Your task to perform on an android device: change your default location settings in chrome Image 0: 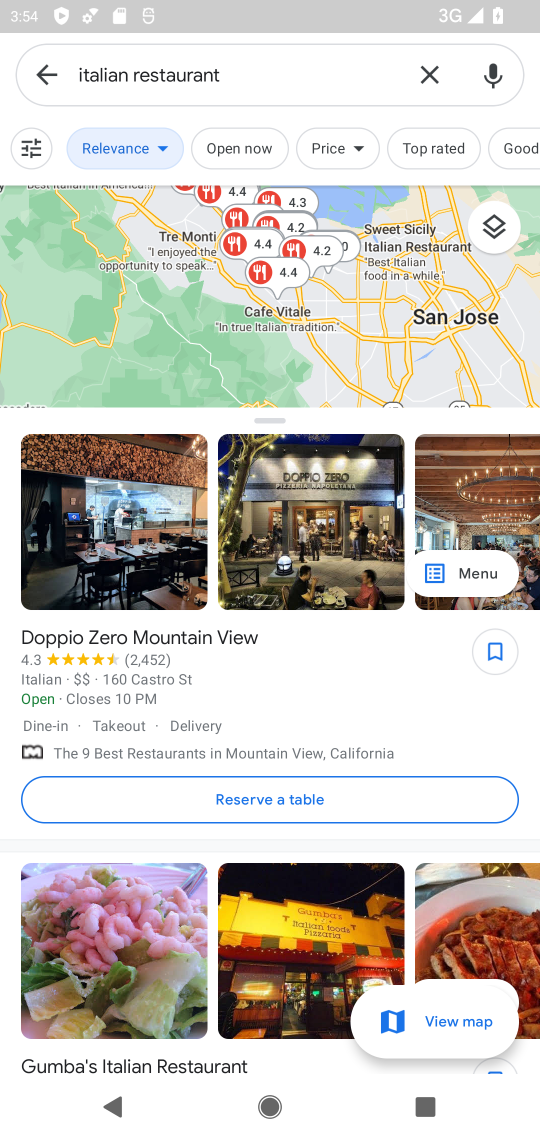
Step 0: press home button
Your task to perform on an android device: change your default location settings in chrome Image 1: 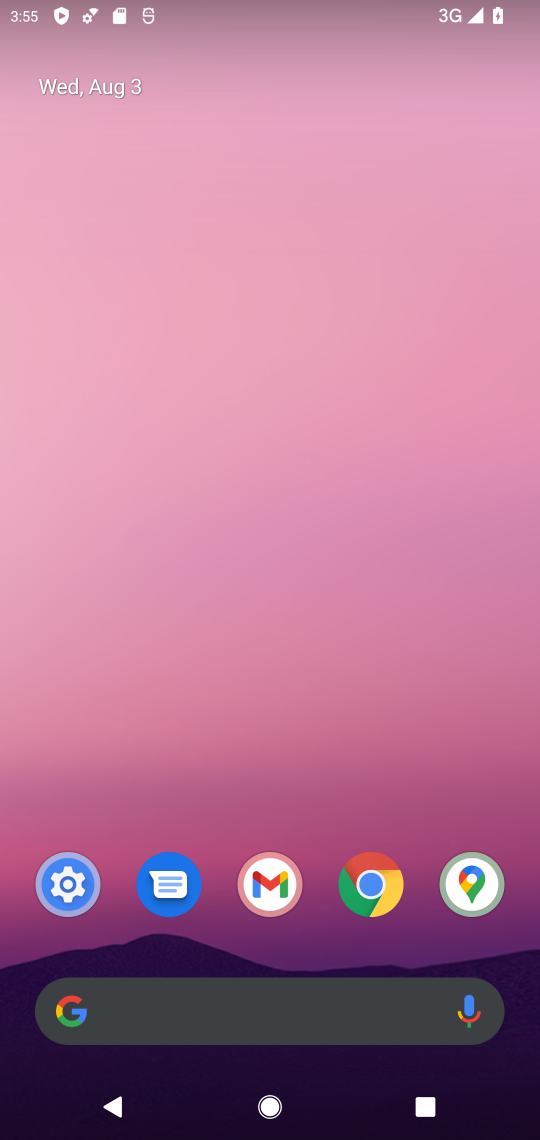
Step 1: click (73, 889)
Your task to perform on an android device: change your default location settings in chrome Image 2: 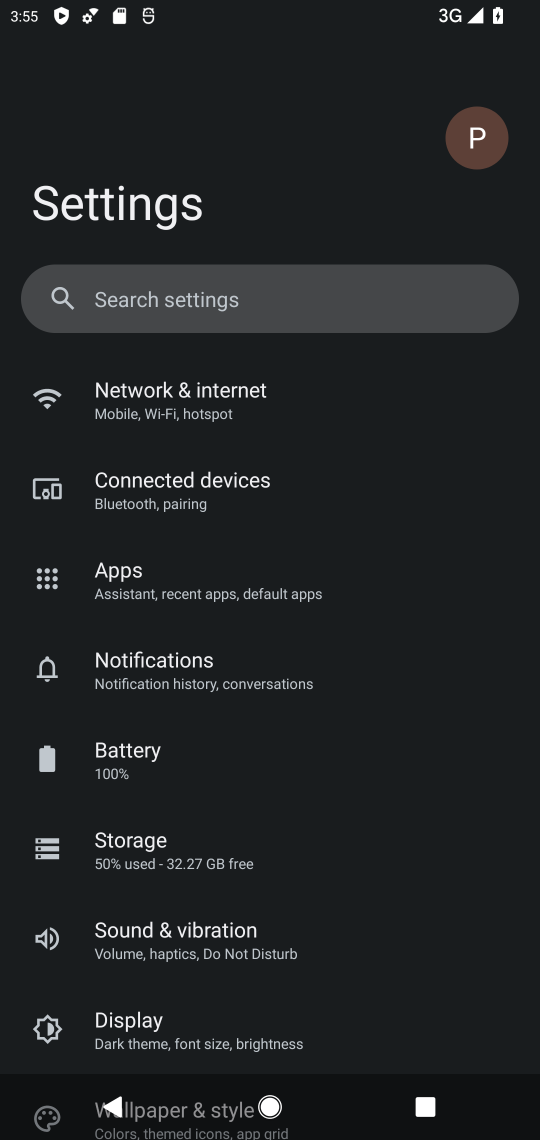
Step 2: press home button
Your task to perform on an android device: change your default location settings in chrome Image 3: 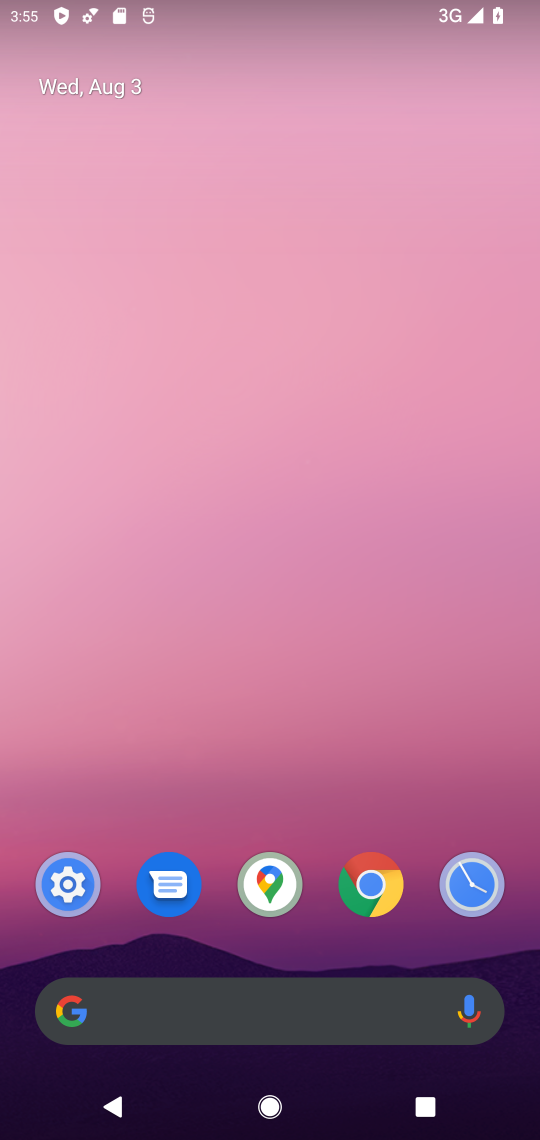
Step 3: click (371, 880)
Your task to perform on an android device: change your default location settings in chrome Image 4: 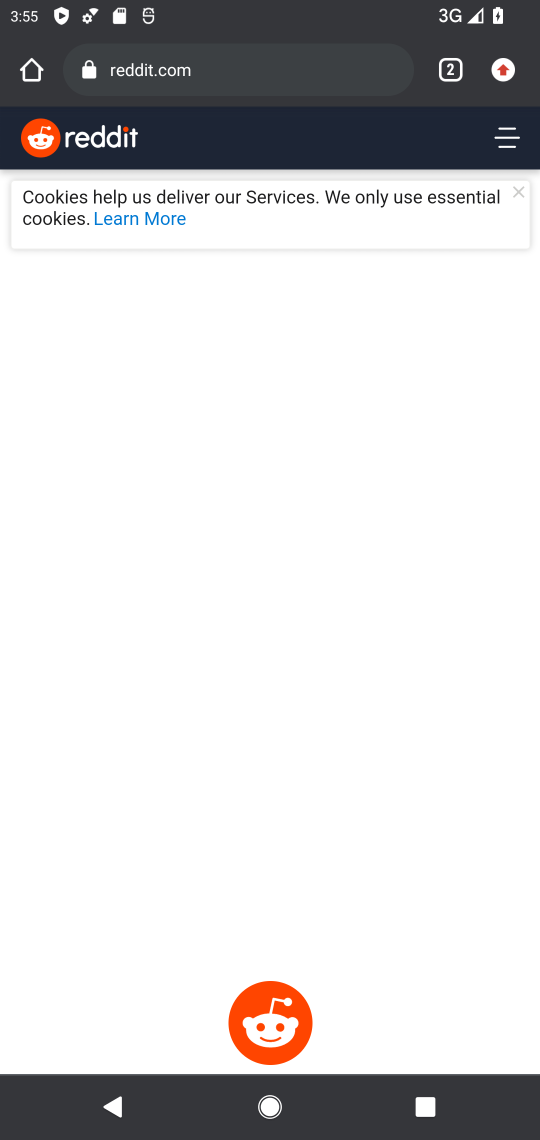
Step 4: click (512, 76)
Your task to perform on an android device: change your default location settings in chrome Image 5: 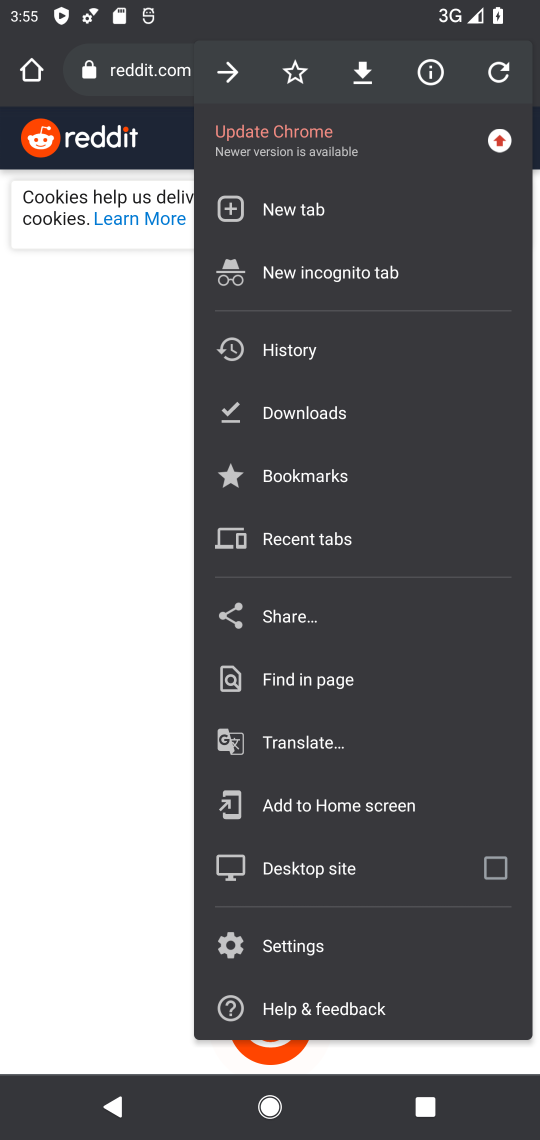
Step 5: click (331, 944)
Your task to perform on an android device: change your default location settings in chrome Image 6: 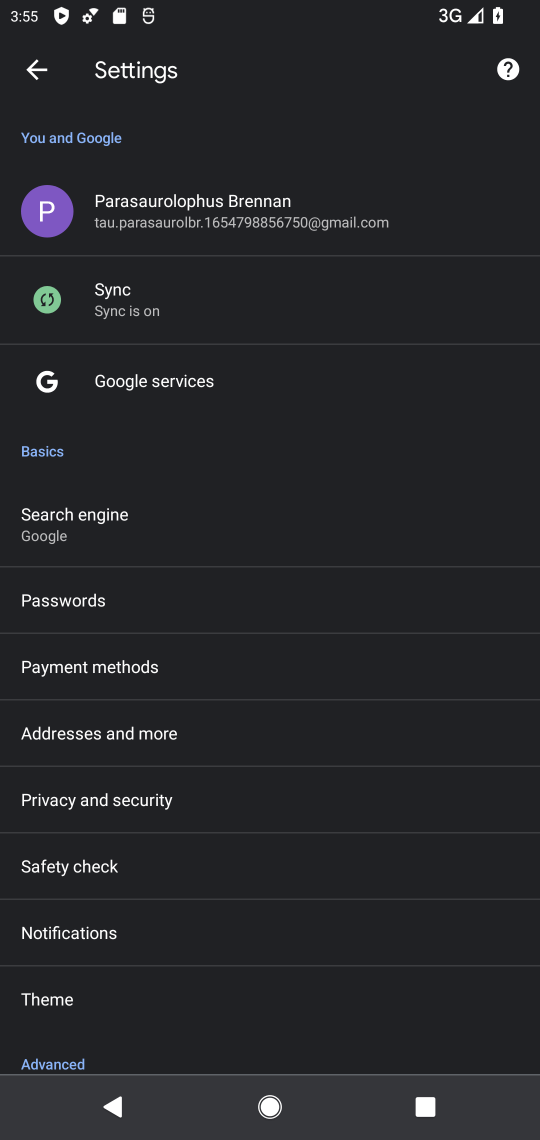
Step 6: task complete